Your task to perform on an android device: delete the emails in spam in the gmail app Image 0: 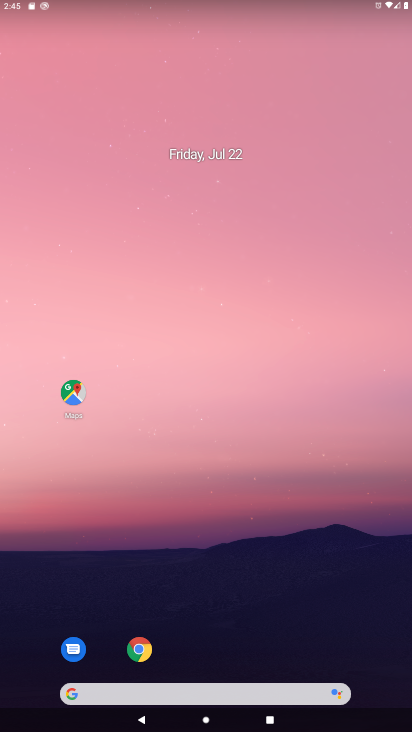
Step 0: drag from (230, 724) to (233, 117)
Your task to perform on an android device: delete the emails in spam in the gmail app Image 1: 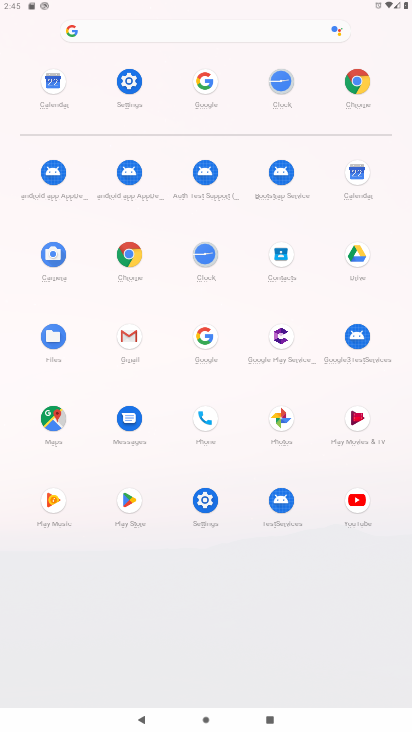
Step 1: click (127, 338)
Your task to perform on an android device: delete the emails in spam in the gmail app Image 2: 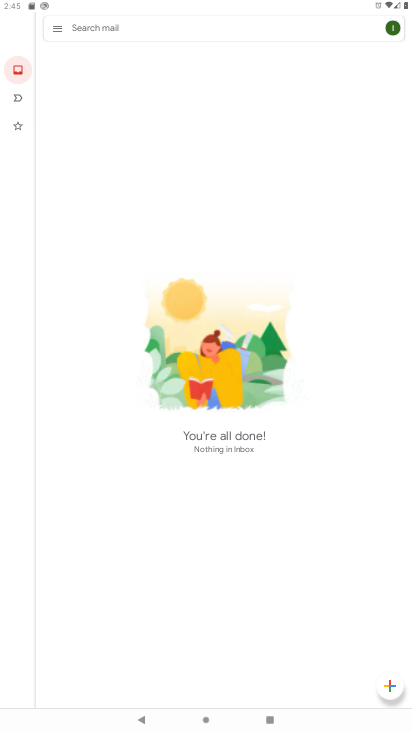
Step 2: click (52, 26)
Your task to perform on an android device: delete the emails in spam in the gmail app Image 3: 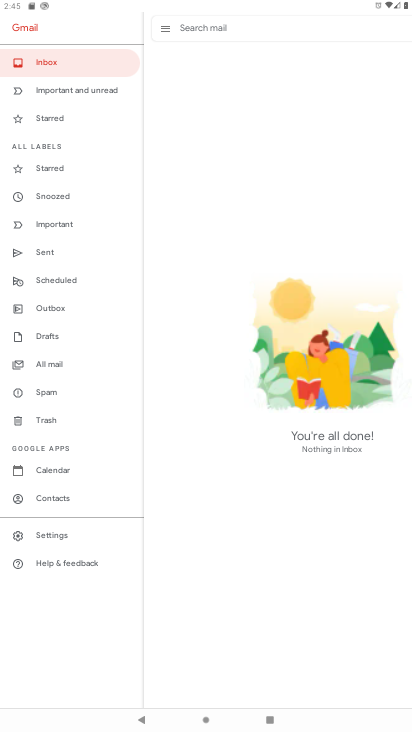
Step 3: click (44, 389)
Your task to perform on an android device: delete the emails in spam in the gmail app Image 4: 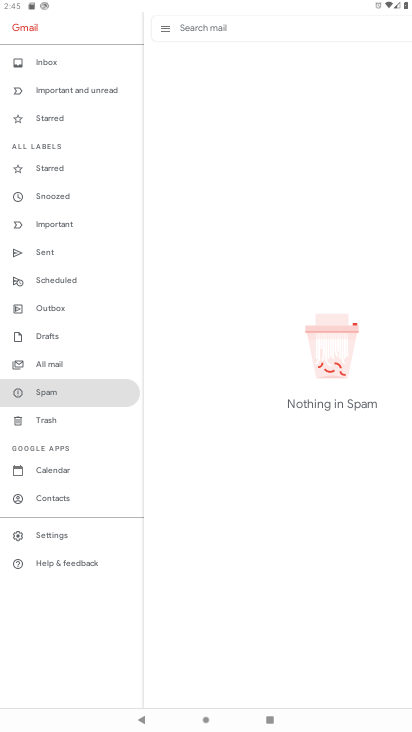
Step 4: task complete